Your task to perform on an android device: Go to Google Image 0: 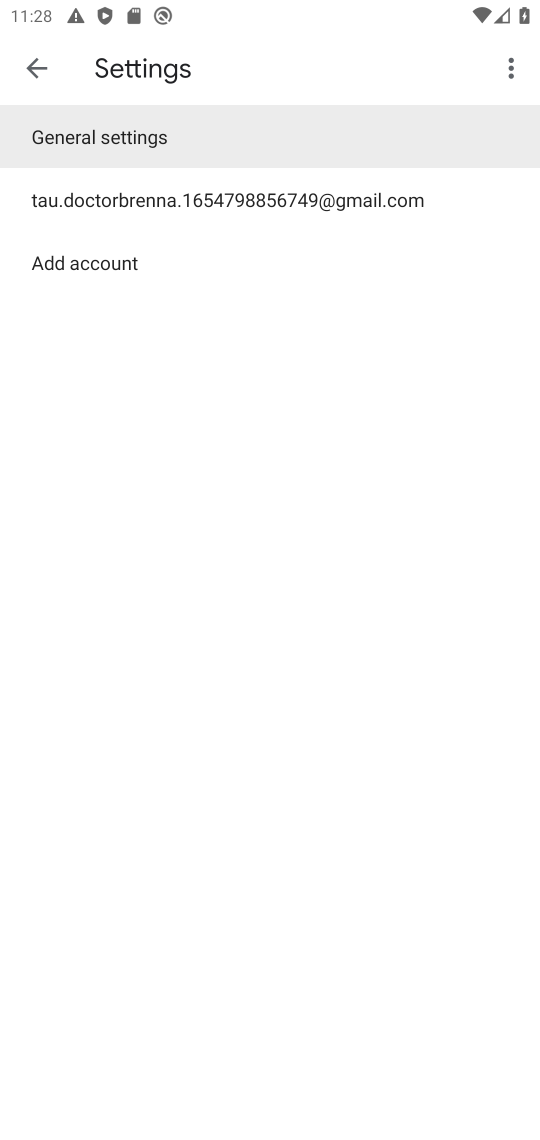
Step 0: press home button
Your task to perform on an android device: Go to Google Image 1: 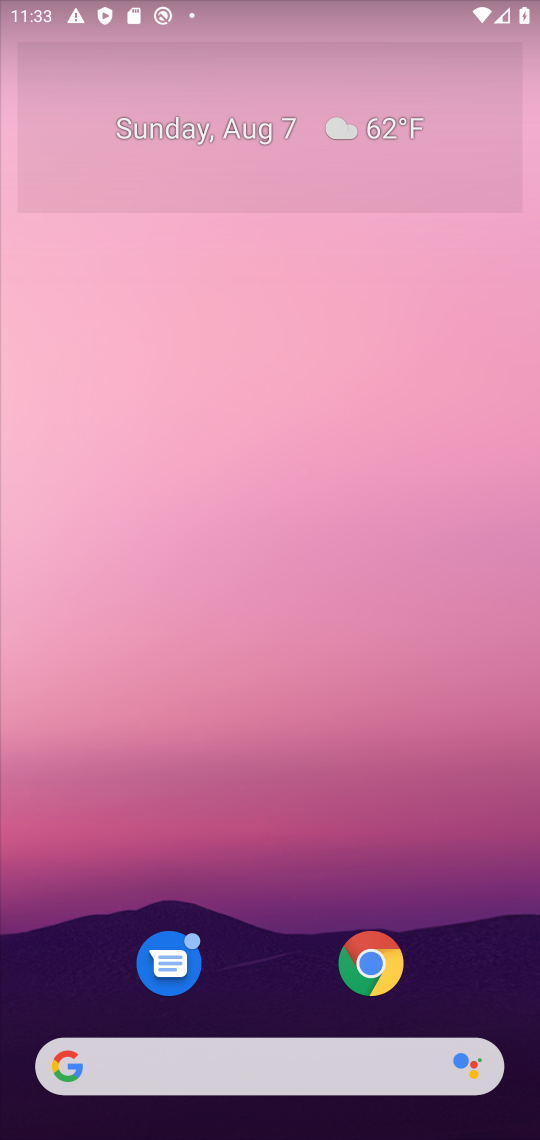
Step 1: drag from (450, 931) to (308, 48)
Your task to perform on an android device: Go to Google Image 2: 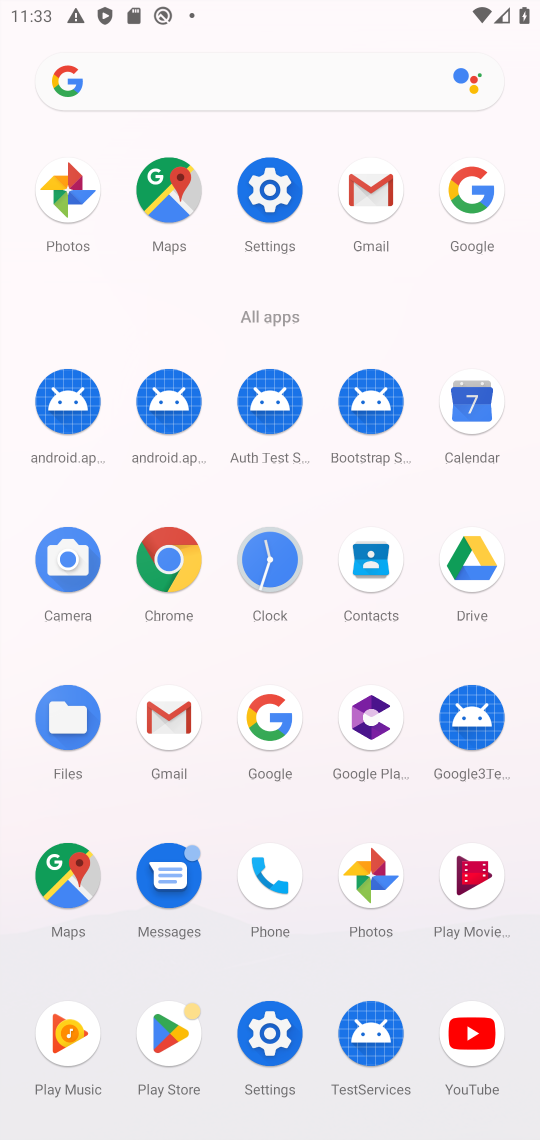
Step 2: click (251, 738)
Your task to perform on an android device: Go to Google Image 3: 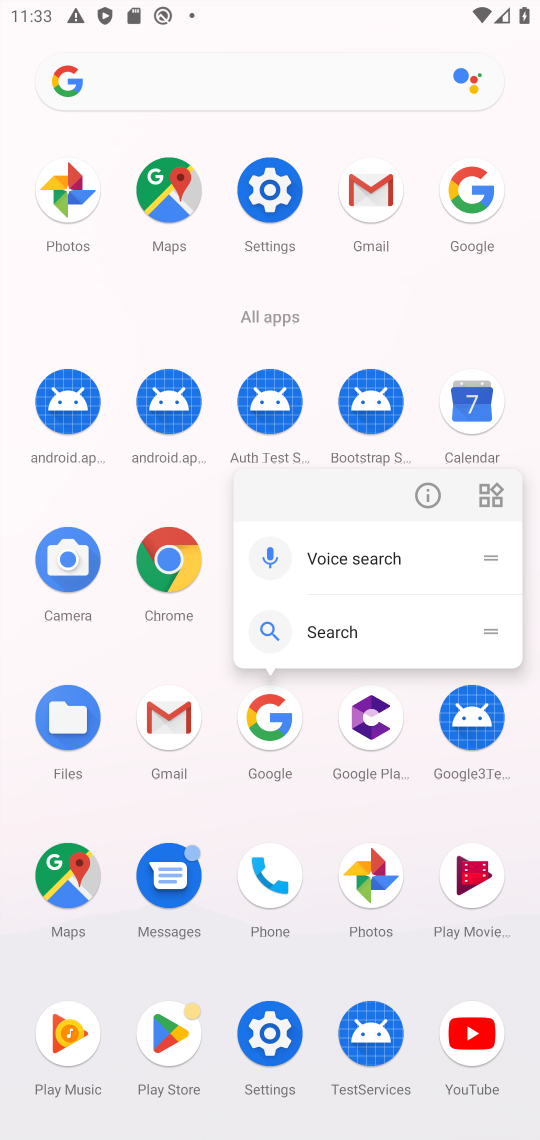
Step 3: click (266, 726)
Your task to perform on an android device: Go to Google Image 4: 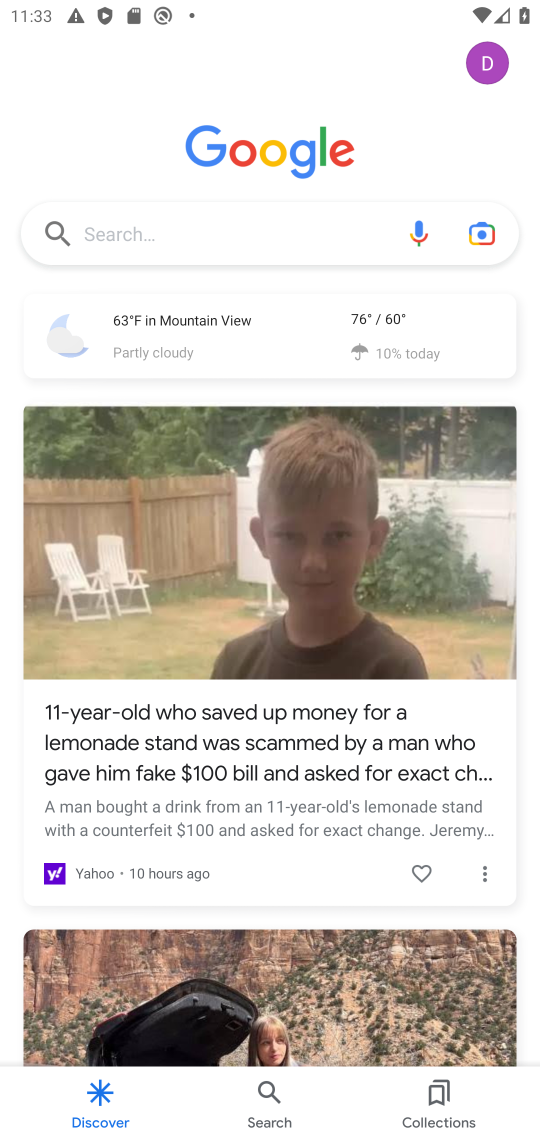
Step 4: task complete